Your task to perform on an android device: turn off wifi Image 0: 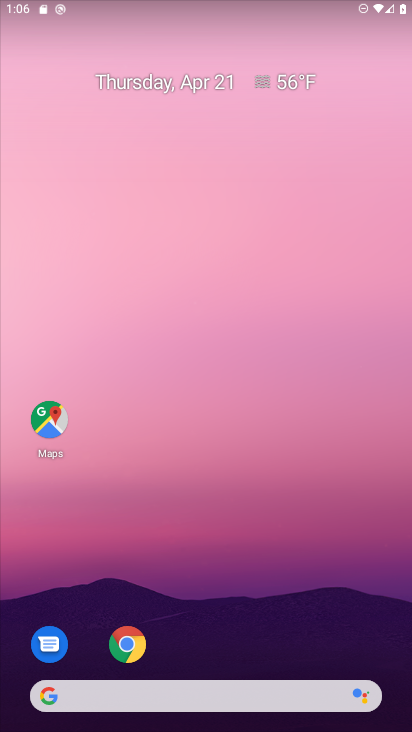
Step 0: drag from (210, 515) to (237, 254)
Your task to perform on an android device: turn off wifi Image 1: 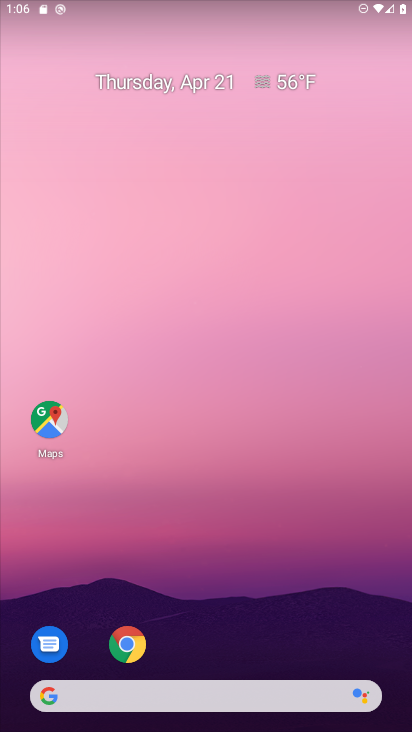
Step 1: drag from (253, 660) to (301, 128)
Your task to perform on an android device: turn off wifi Image 2: 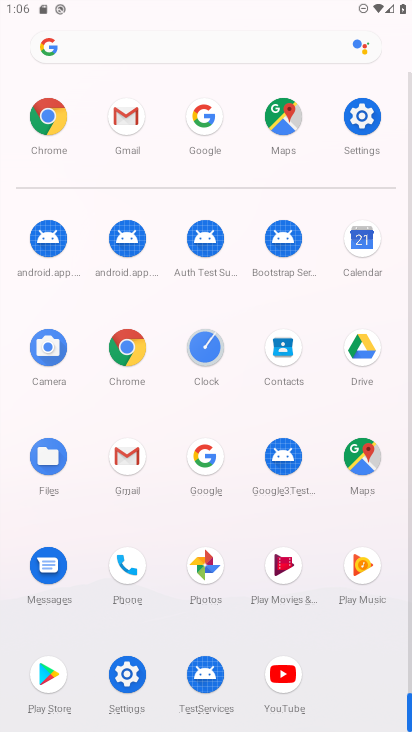
Step 2: click (359, 114)
Your task to perform on an android device: turn off wifi Image 3: 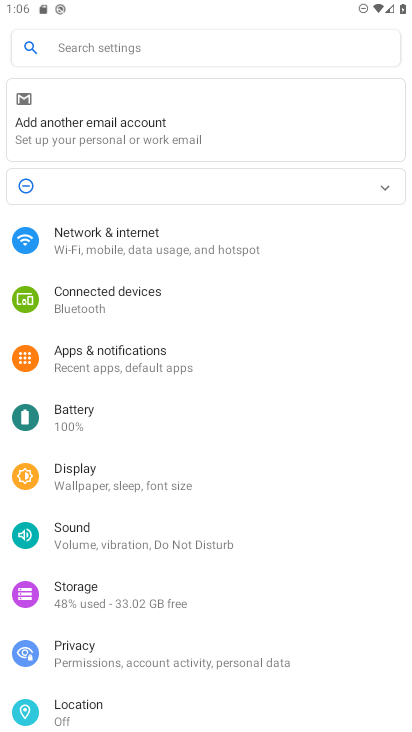
Step 3: click (159, 242)
Your task to perform on an android device: turn off wifi Image 4: 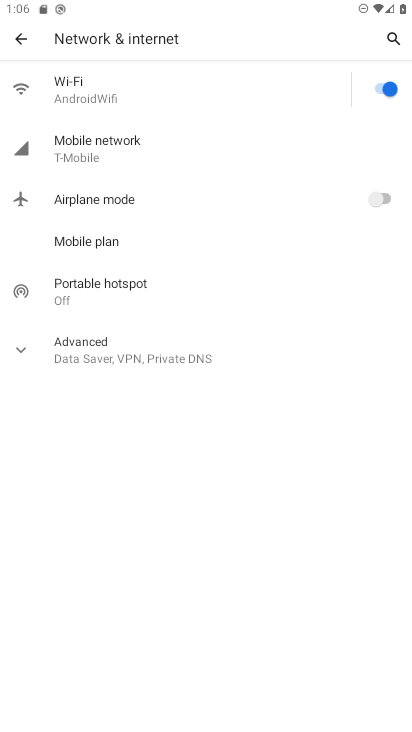
Step 4: click (375, 84)
Your task to perform on an android device: turn off wifi Image 5: 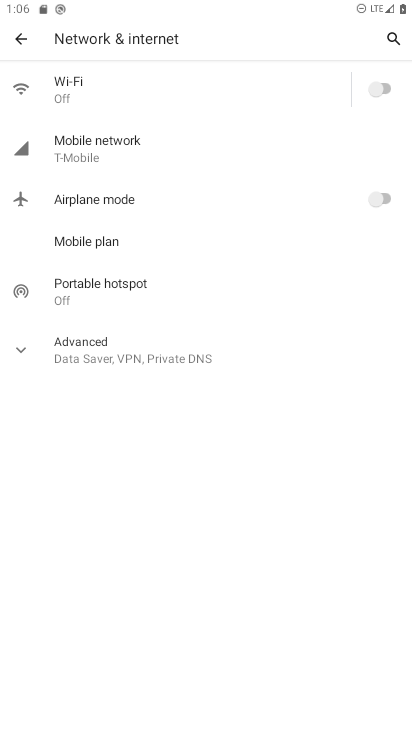
Step 5: task complete